Your task to perform on an android device: Open the web browser Image 0: 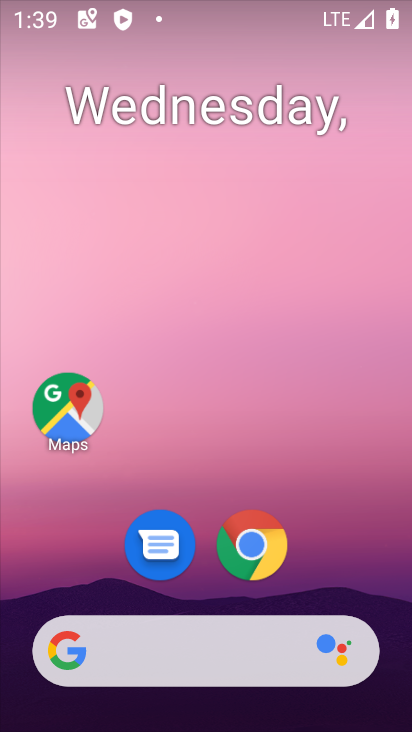
Step 0: click (264, 543)
Your task to perform on an android device: Open the web browser Image 1: 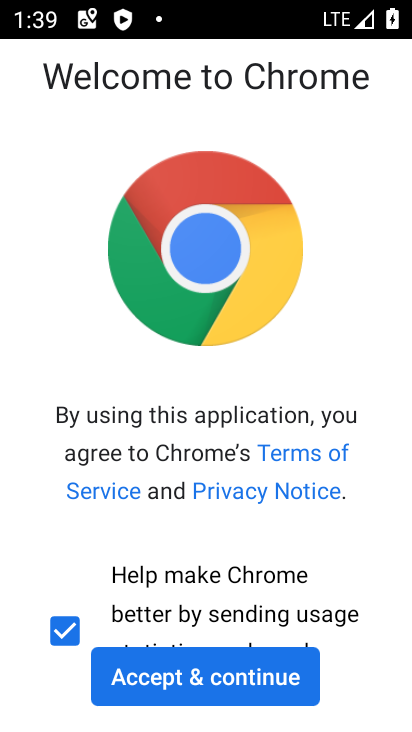
Step 1: click (250, 672)
Your task to perform on an android device: Open the web browser Image 2: 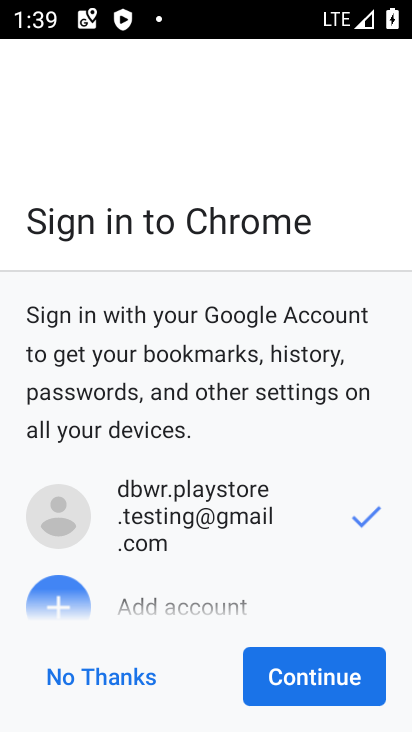
Step 2: click (347, 692)
Your task to perform on an android device: Open the web browser Image 3: 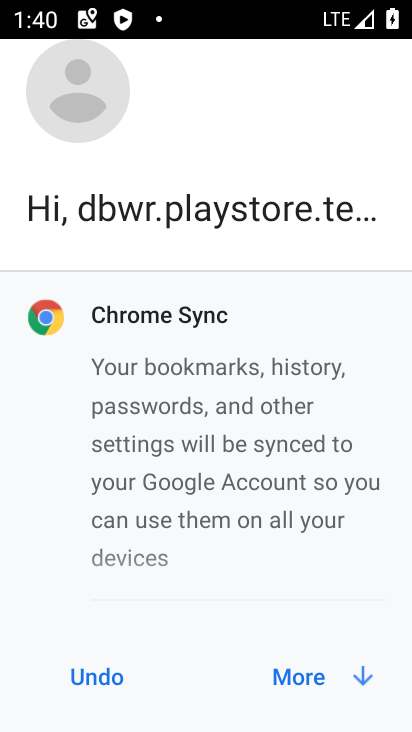
Step 3: click (287, 688)
Your task to perform on an android device: Open the web browser Image 4: 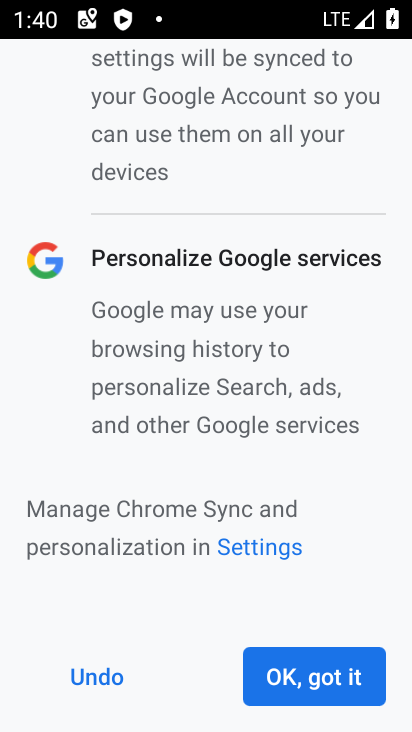
Step 4: click (302, 668)
Your task to perform on an android device: Open the web browser Image 5: 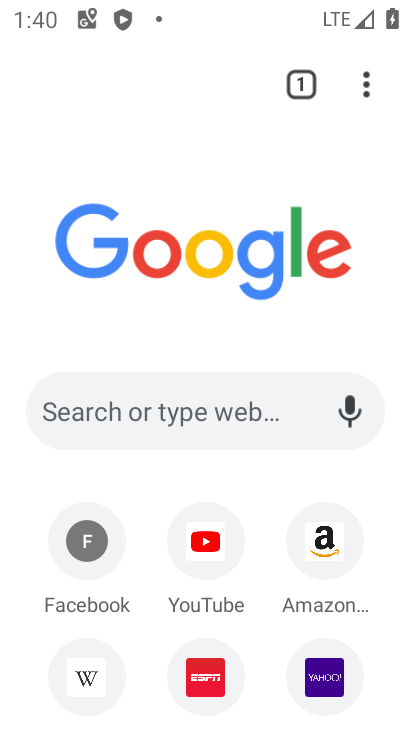
Step 5: task complete